Your task to perform on an android device: toggle translation in the chrome app Image 0: 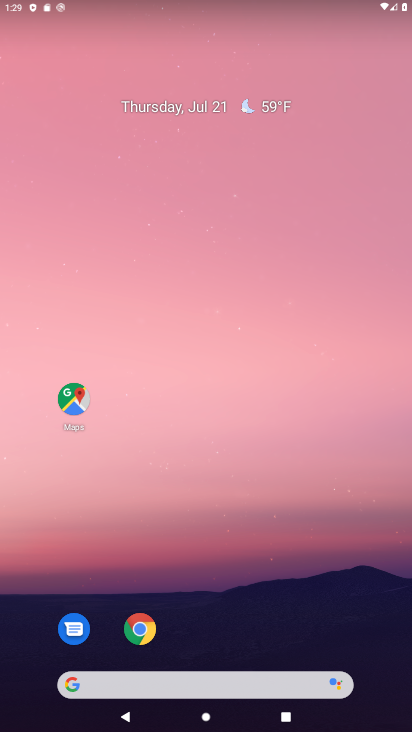
Step 0: click (140, 630)
Your task to perform on an android device: toggle translation in the chrome app Image 1: 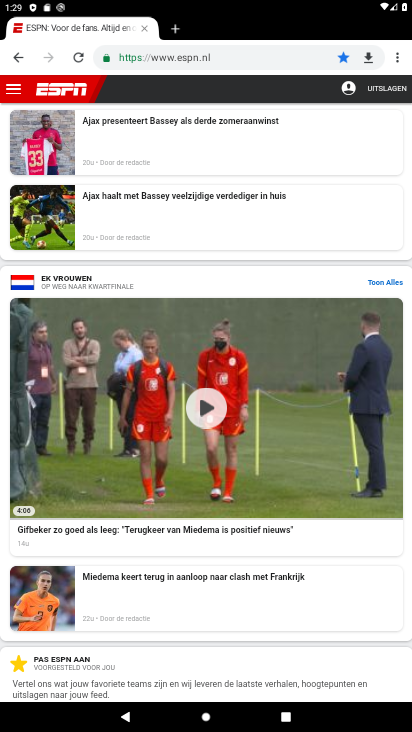
Step 1: click (397, 62)
Your task to perform on an android device: toggle translation in the chrome app Image 2: 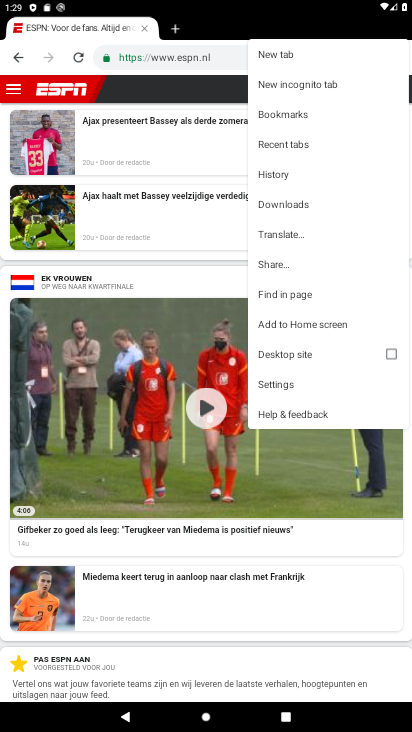
Step 2: click (277, 376)
Your task to perform on an android device: toggle translation in the chrome app Image 3: 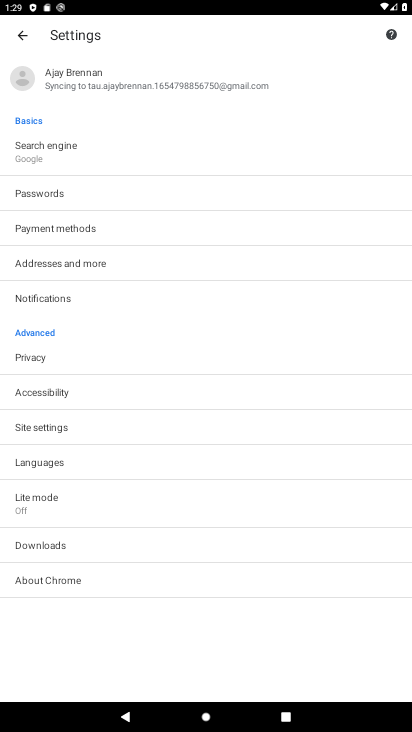
Step 3: click (36, 462)
Your task to perform on an android device: toggle translation in the chrome app Image 4: 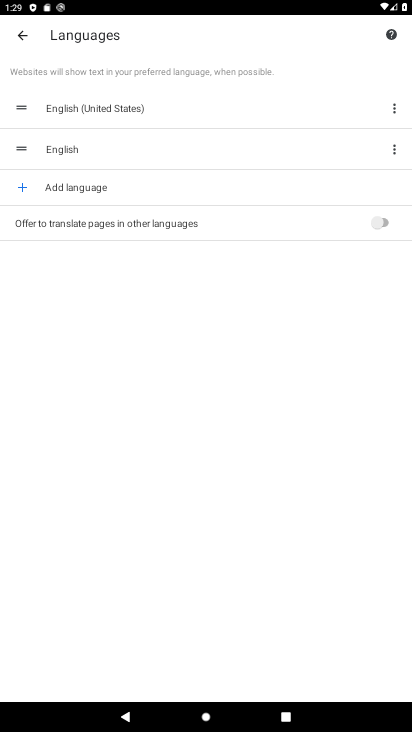
Step 4: click (384, 223)
Your task to perform on an android device: toggle translation in the chrome app Image 5: 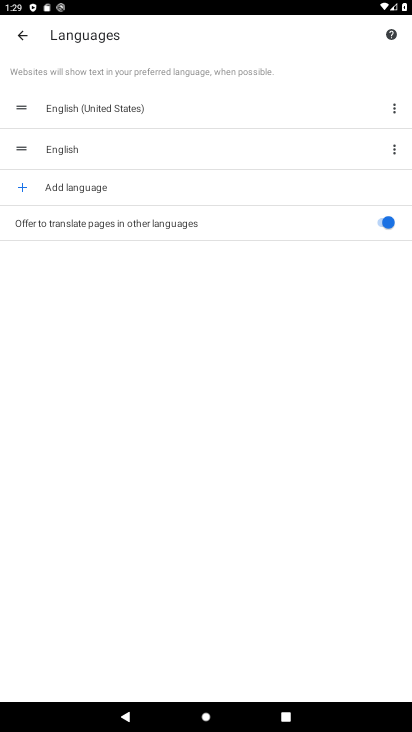
Step 5: task complete